Your task to perform on an android device: see tabs open on other devices in the chrome app Image 0: 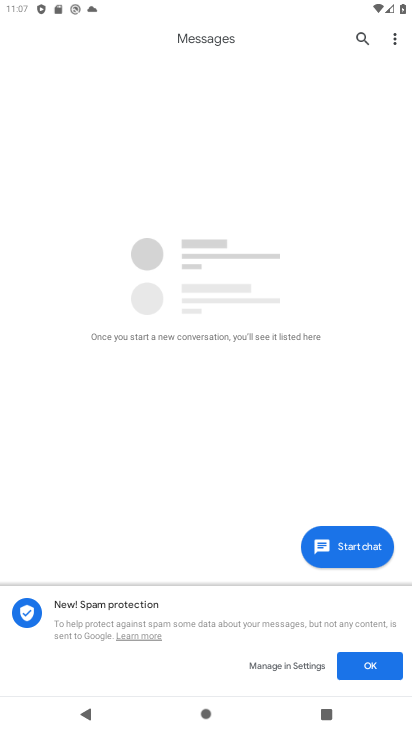
Step 0: press home button
Your task to perform on an android device: see tabs open on other devices in the chrome app Image 1: 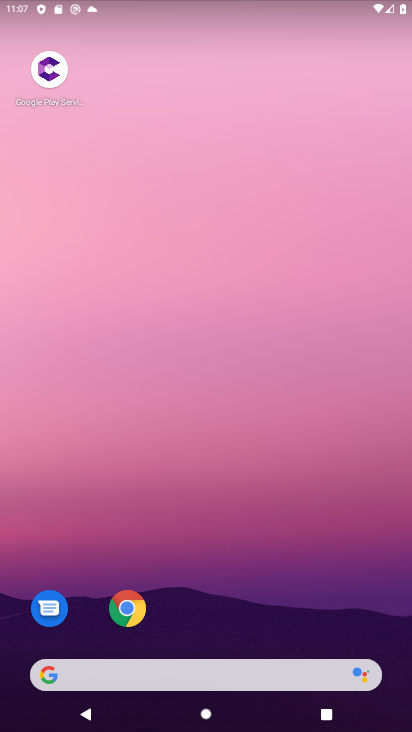
Step 1: click (133, 600)
Your task to perform on an android device: see tabs open on other devices in the chrome app Image 2: 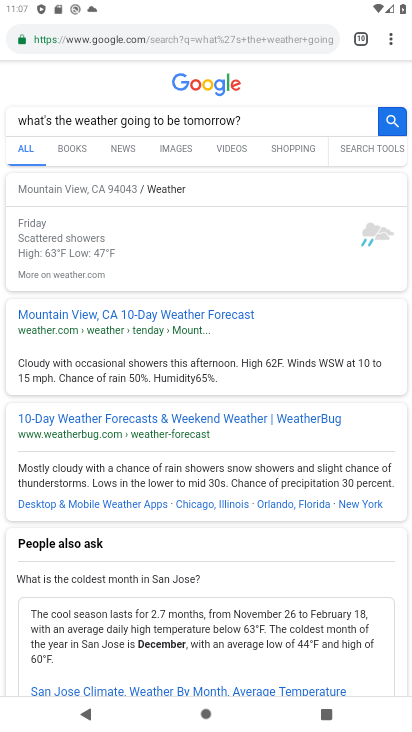
Step 2: task complete